Your task to perform on an android device: toggle translation in the chrome app Image 0: 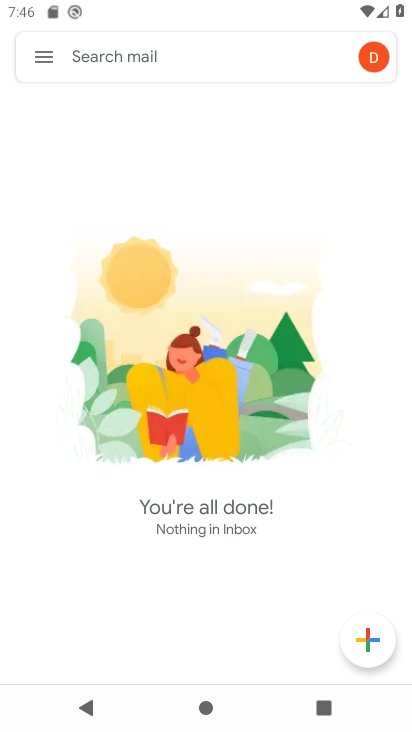
Step 0: press home button
Your task to perform on an android device: toggle translation in the chrome app Image 1: 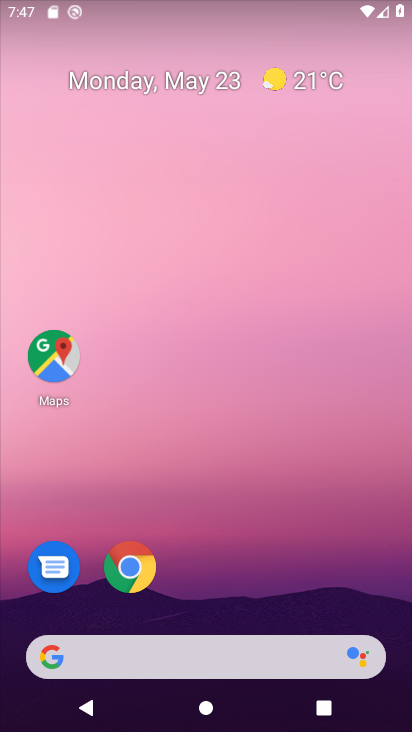
Step 1: click (115, 572)
Your task to perform on an android device: toggle translation in the chrome app Image 2: 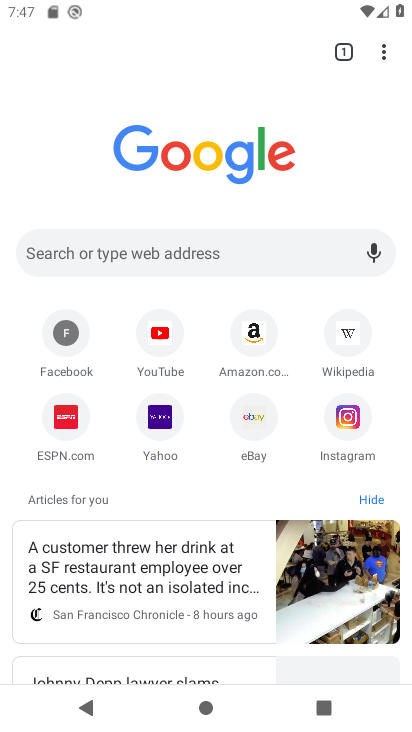
Step 2: click (222, 518)
Your task to perform on an android device: toggle translation in the chrome app Image 3: 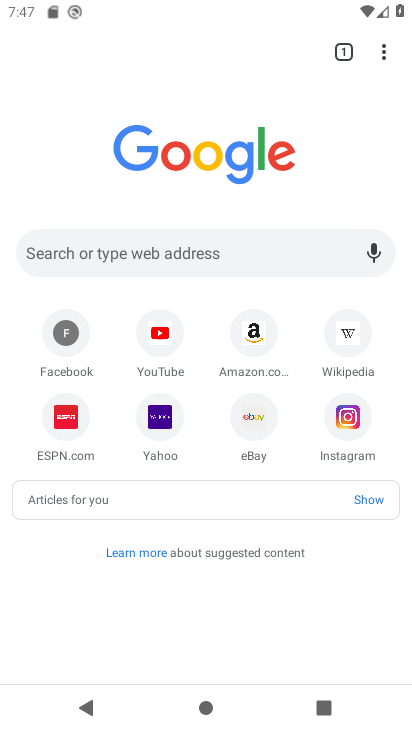
Step 3: drag from (393, 46) to (265, 426)
Your task to perform on an android device: toggle translation in the chrome app Image 4: 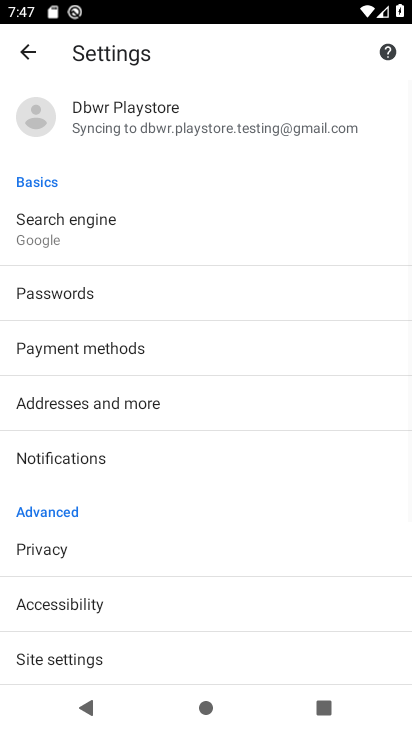
Step 4: drag from (185, 613) to (265, 311)
Your task to perform on an android device: toggle translation in the chrome app Image 5: 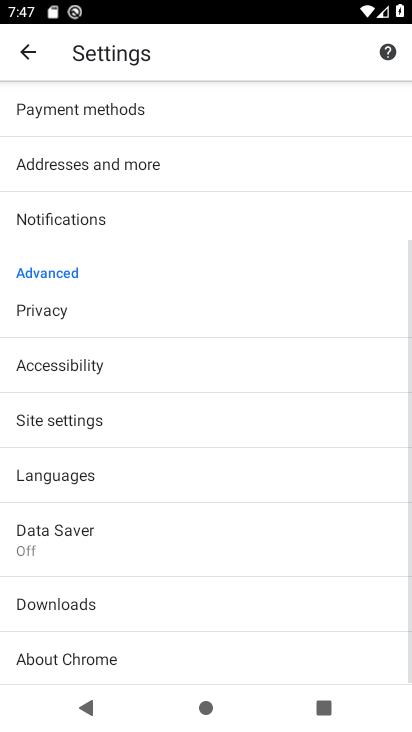
Step 5: click (119, 472)
Your task to perform on an android device: toggle translation in the chrome app Image 6: 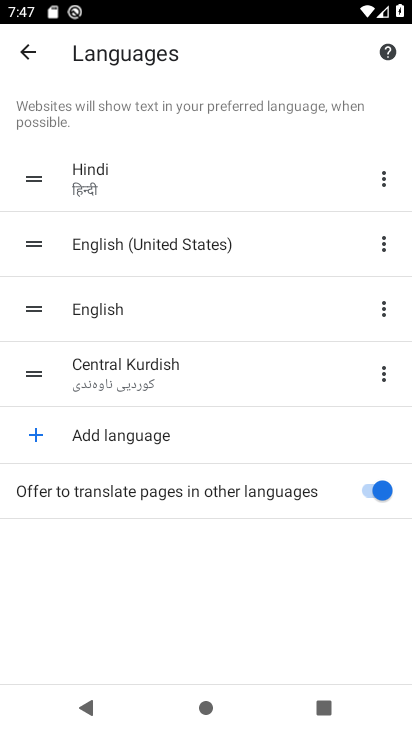
Step 6: click (366, 487)
Your task to perform on an android device: toggle translation in the chrome app Image 7: 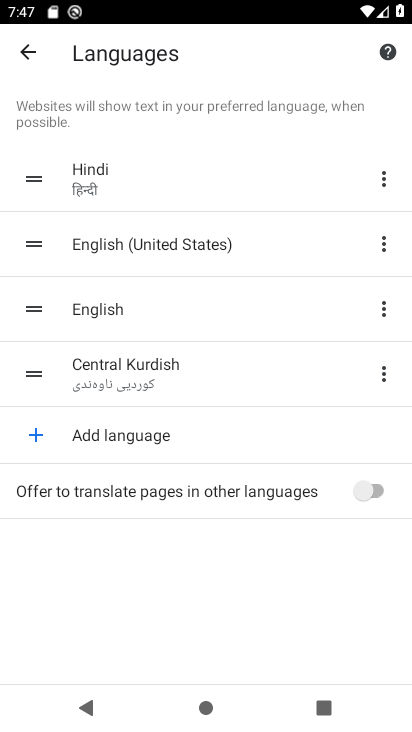
Step 7: task complete